Your task to perform on an android device: Open notification settings Image 0: 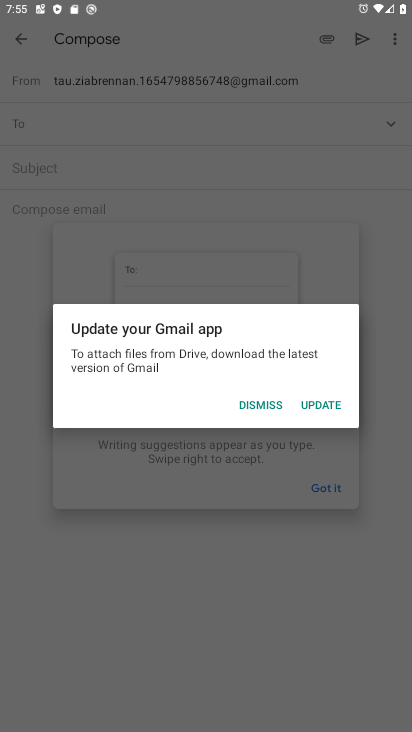
Step 0: press home button
Your task to perform on an android device: Open notification settings Image 1: 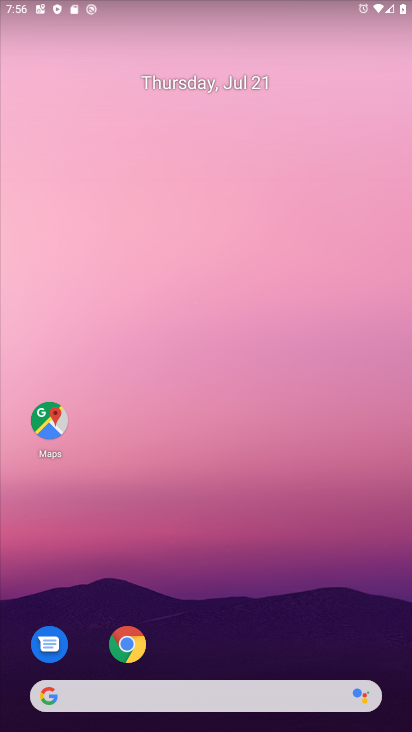
Step 1: drag from (177, 603) to (152, 153)
Your task to perform on an android device: Open notification settings Image 2: 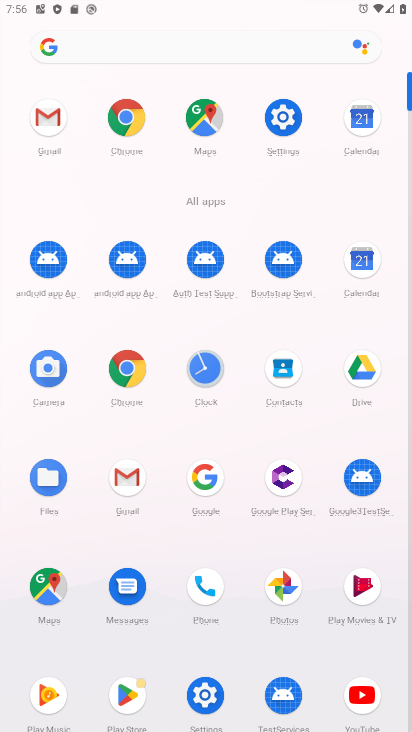
Step 2: click (282, 104)
Your task to perform on an android device: Open notification settings Image 3: 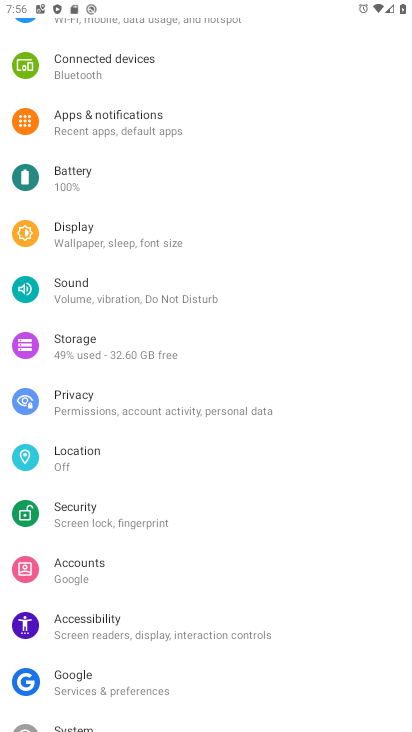
Step 3: click (97, 128)
Your task to perform on an android device: Open notification settings Image 4: 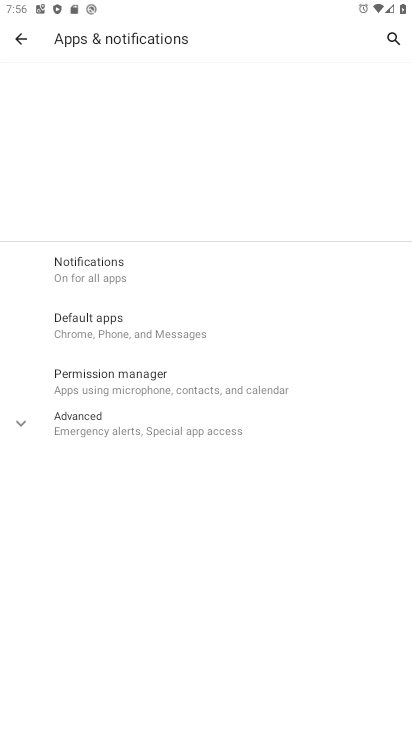
Step 4: click (89, 269)
Your task to perform on an android device: Open notification settings Image 5: 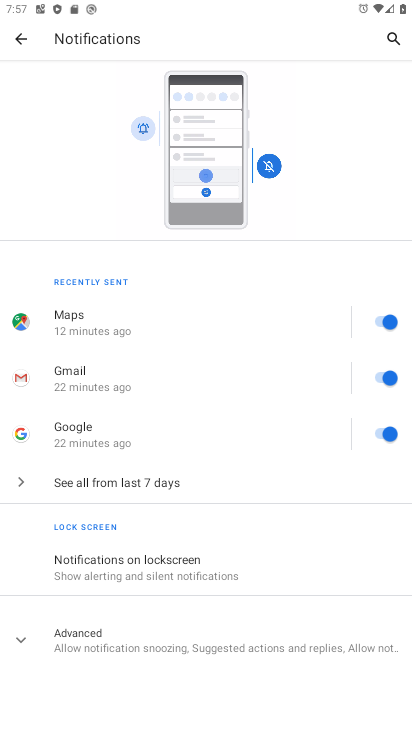
Step 5: task complete